Your task to perform on an android device: Open Yahoo.com Image 0: 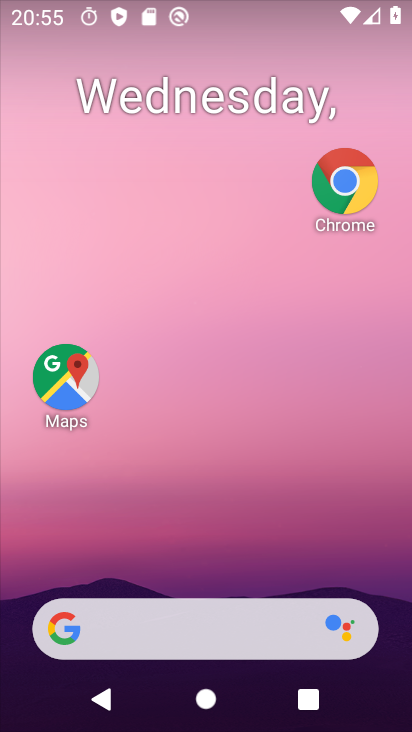
Step 0: drag from (253, 667) to (272, 250)
Your task to perform on an android device: Open Yahoo.com Image 1: 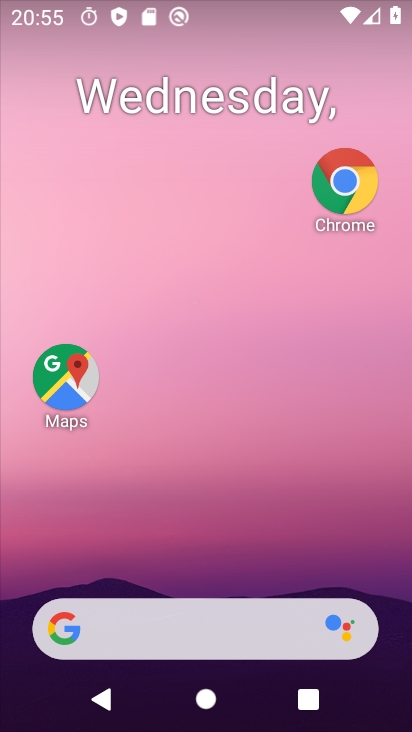
Step 1: drag from (173, 675) to (179, 235)
Your task to perform on an android device: Open Yahoo.com Image 2: 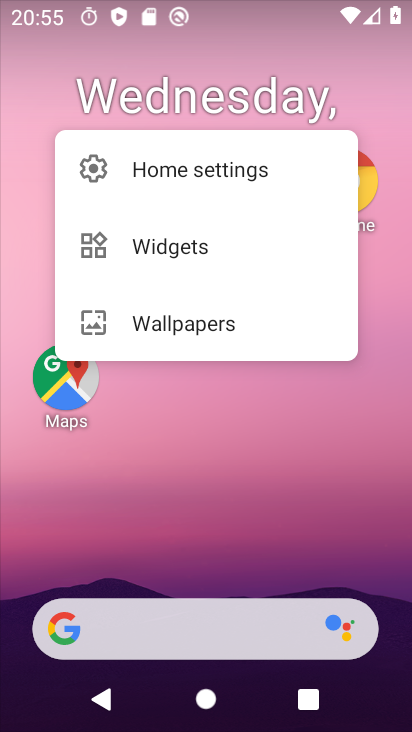
Step 2: click (211, 453)
Your task to perform on an android device: Open Yahoo.com Image 3: 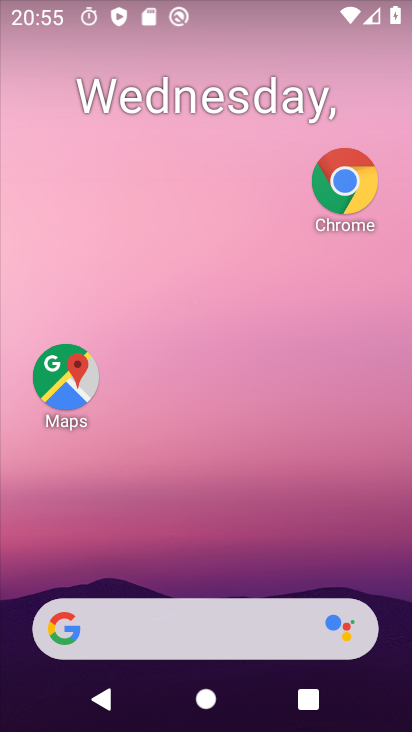
Step 3: drag from (206, 655) to (401, 121)
Your task to perform on an android device: Open Yahoo.com Image 4: 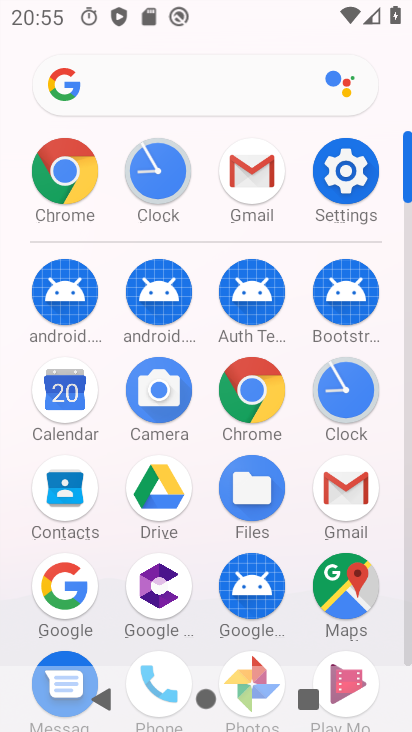
Step 4: click (82, 190)
Your task to perform on an android device: Open Yahoo.com Image 5: 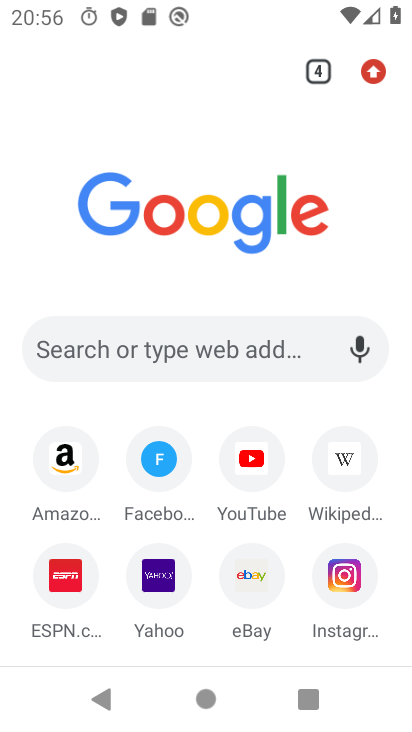
Step 5: click (148, 573)
Your task to perform on an android device: Open Yahoo.com Image 6: 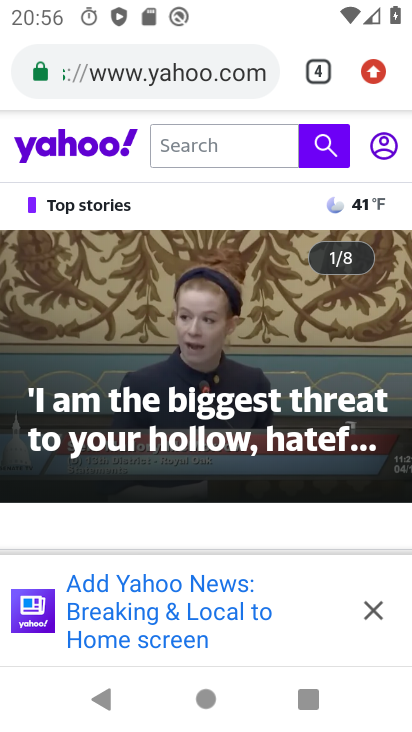
Step 6: click (379, 605)
Your task to perform on an android device: Open Yahoo.com Image 7: 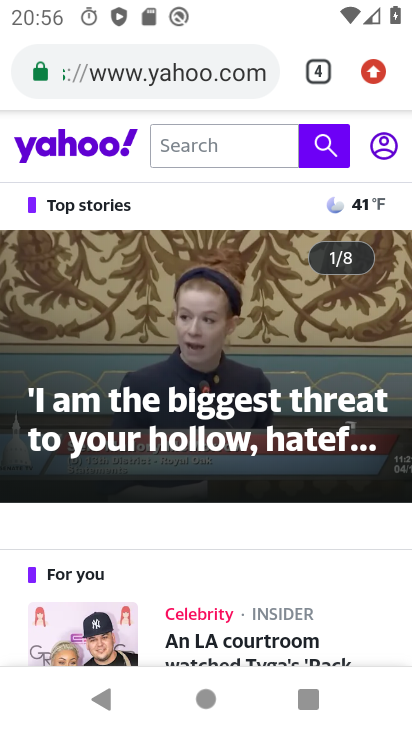
Step 7: task complete